Your task to perform on an android device: Go to Amazon Image 0: 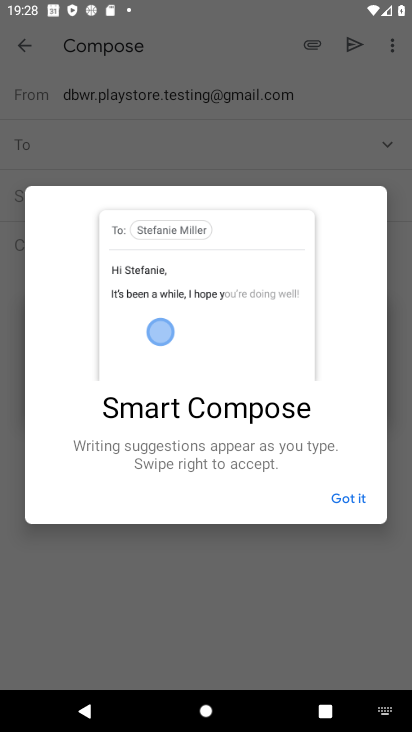
Step 0: press home button
Your task to perform on an android device: Go to Amazon Image 1: 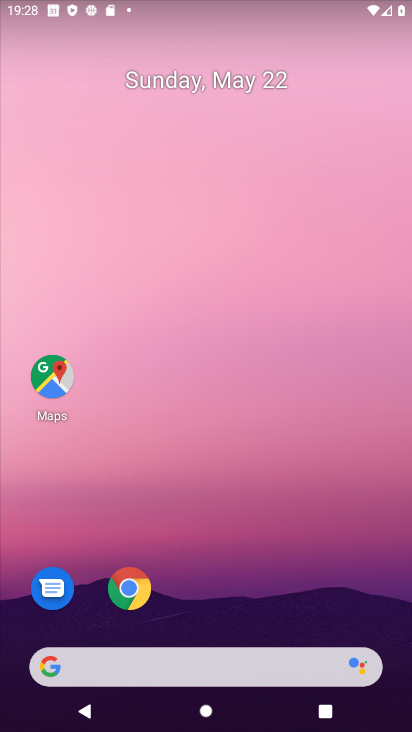
Step 1: click (120, 591)
Your task to perform on an android device: Go to Amazon Image 2: 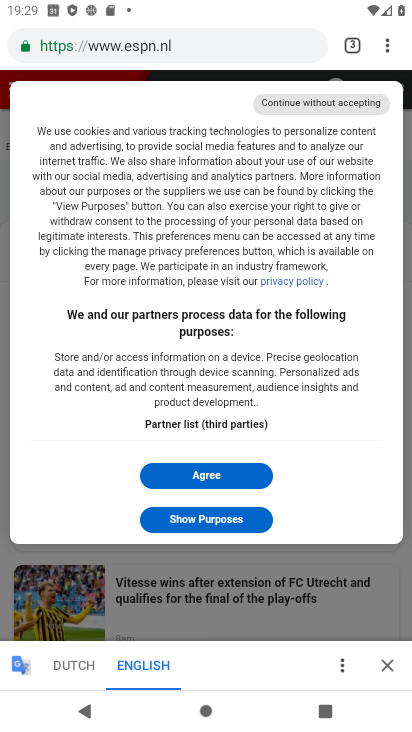
Step 2: click (386, 43)
Your task to perform on an android device: Go to Amazon Image 3: 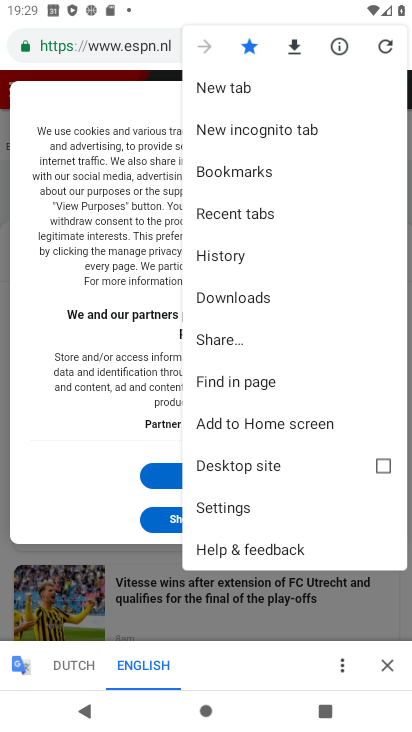
Step 3: click (236, 85)
Your task to perform on an android device: Go to Amazon Image 4: 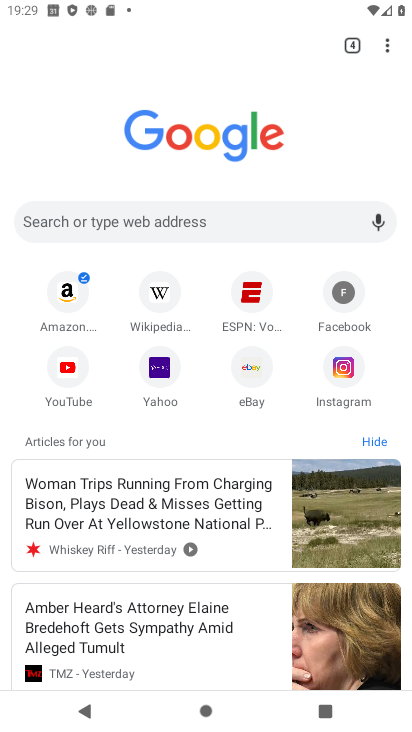
Step 4: click (68, 294)
Your task to perform on an android device: Go to Amazon Image 5: 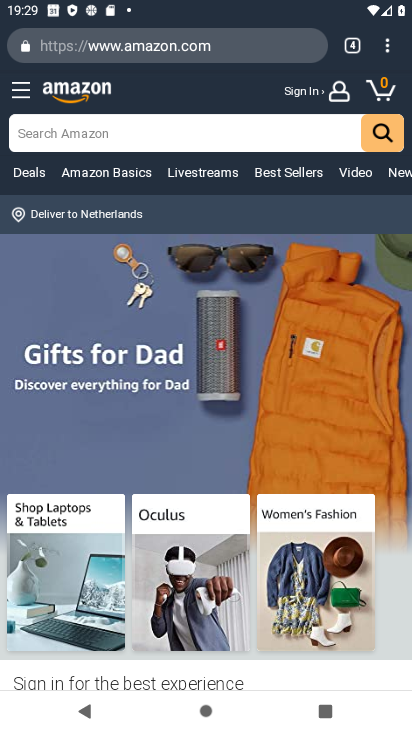
Step 5: task complete